Your task to perform on an android device: clear history in the chrome app Image 0: 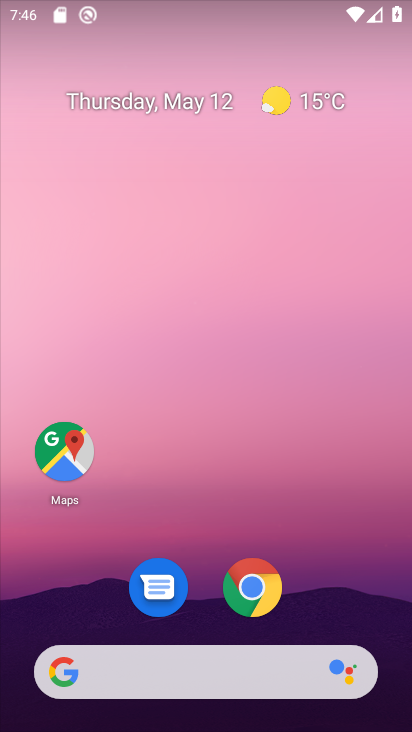
Step 0: drag from (335, 627) to (300, 90)
Your task to perform on an android device: clear history in the chrome app Image 1: 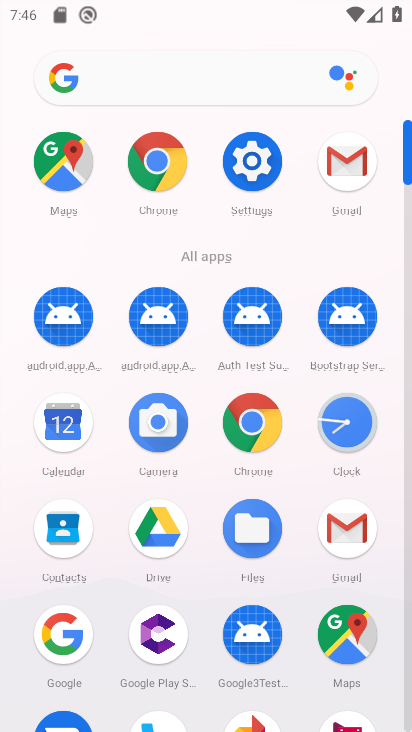
Step 1: click (261, 417)
Your task to perform on an android device: clear history in the chrome app Image 2: 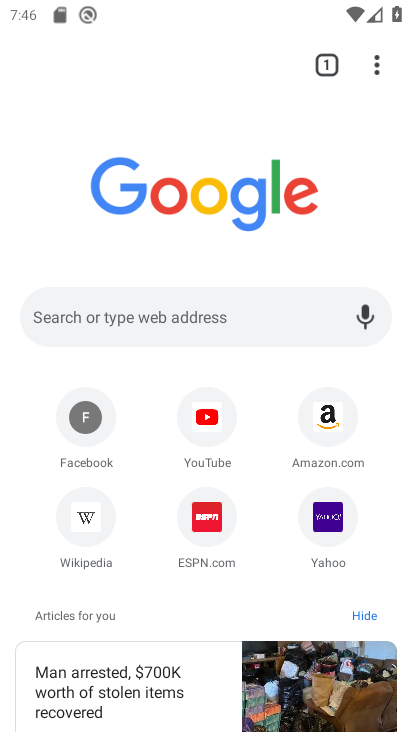
Step 2: click (373, 63)
Your task to perform on an android device: clear history in the chrome app Image 3: 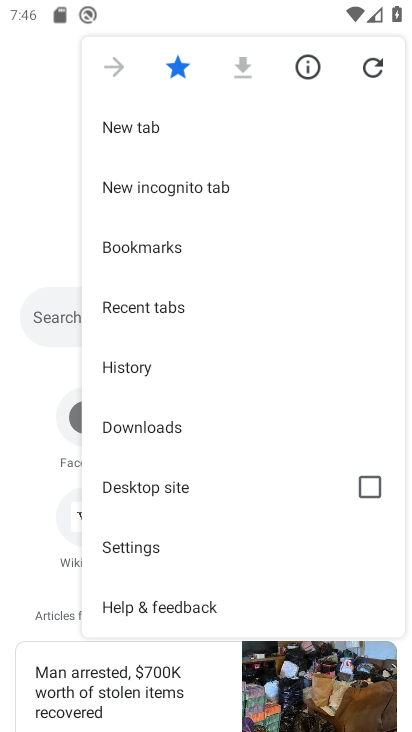
Step 3: click (205, 376)
Your task to perform on an android device: clear history in the chrome app Image 4: 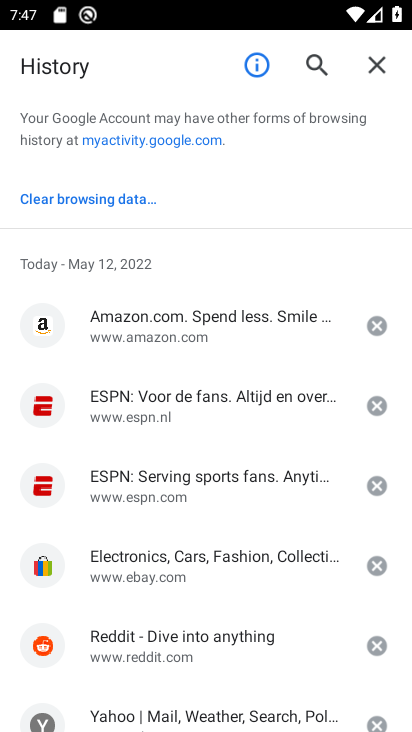
Step 4: click (105, 195)
Your task to perform on an android device: clear history in the chrome app Image 5: 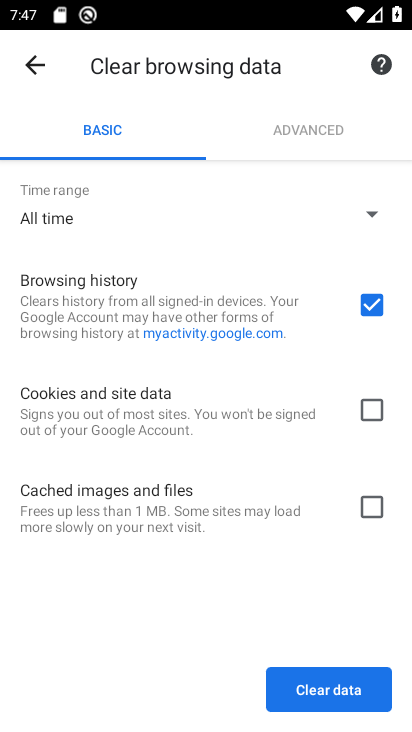
Step 5: click (300, 438)
Your task to perform on an android device: clear history in the chrome app Image 6: 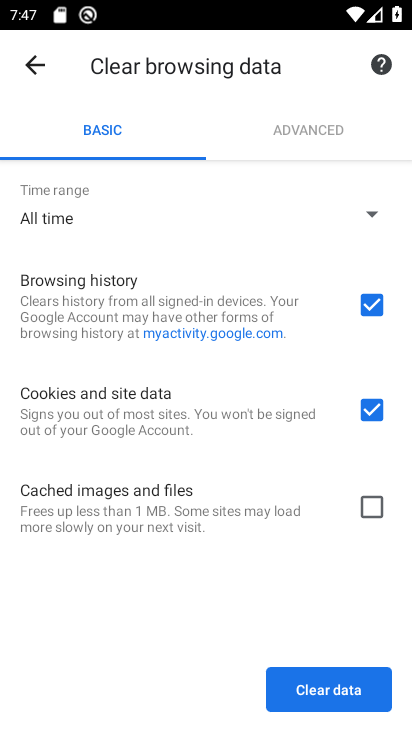
Step 6: click (373, 692)
Your task to perform on an android device: clear history in the chrome app Image 7: 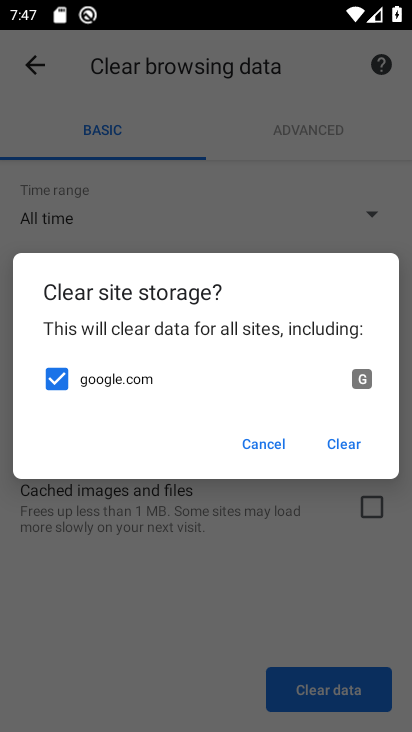
Step 7: click (345, 447)
Your task to perform on an android device: clear history in the chrome app Image 8: 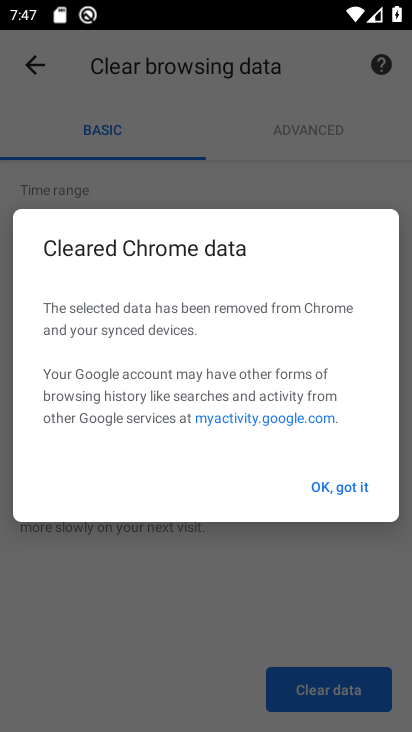
Step 8: click (353, 500)
Your task to perform on an android device: clear history in the chrome app Image 9: 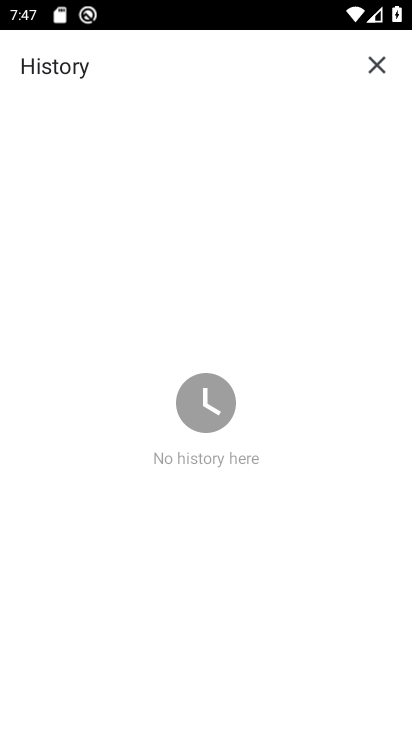
Step 9: task complete